Your task to perform on an android device: Go to Reddit.com Image 0: 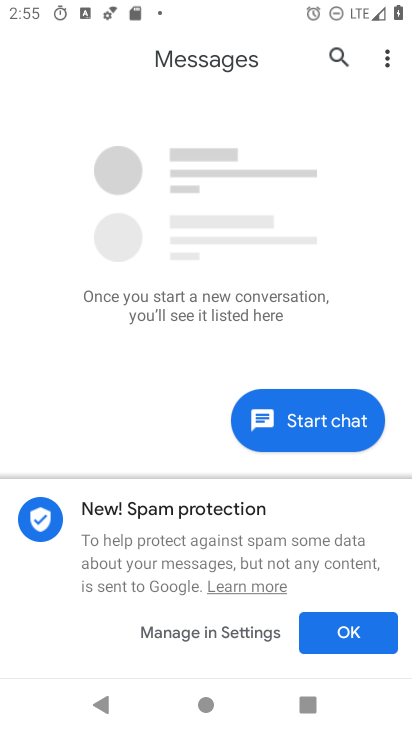
Step 0: press home button
Your task to perform on an android device: Go to Reddit.com Image 1: 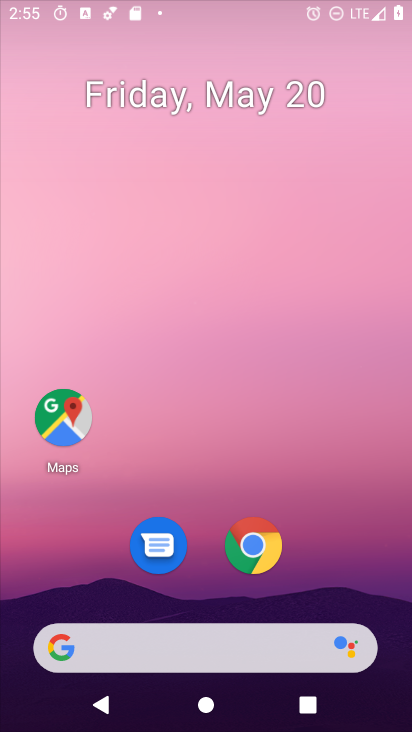
Step 1: drag from (298, 567) to (258, 44)
Your task to perform on an android device: Go to Reddit.com Image 2: 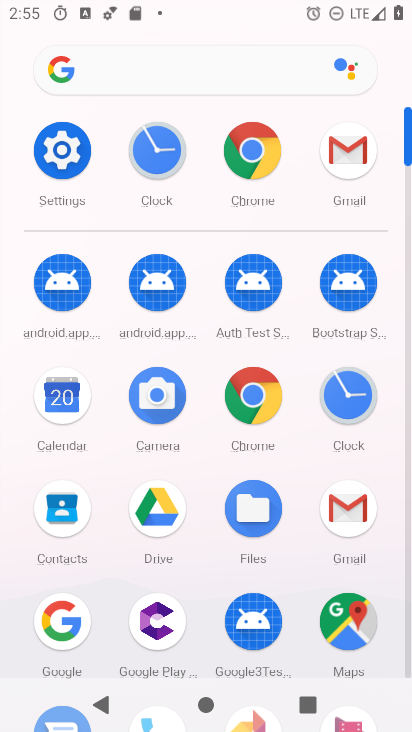
Step 2: click (252, 407)
Your task to perform on an android device: Go to Reddit.com Image 3: 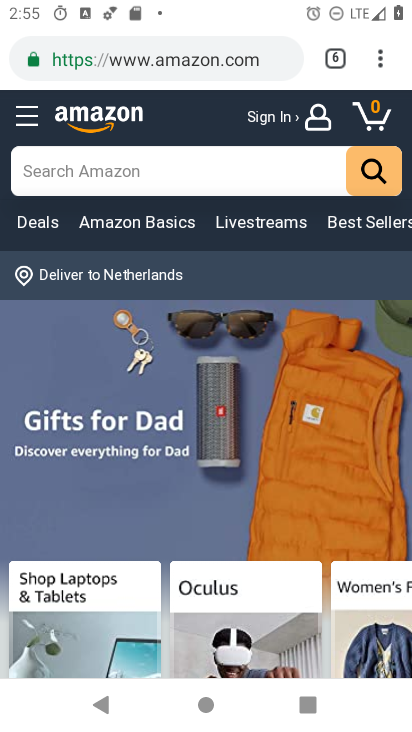
Step 3: click (200, 66)
Your task to perform on an android device: Go to Reddit.com Image 4: 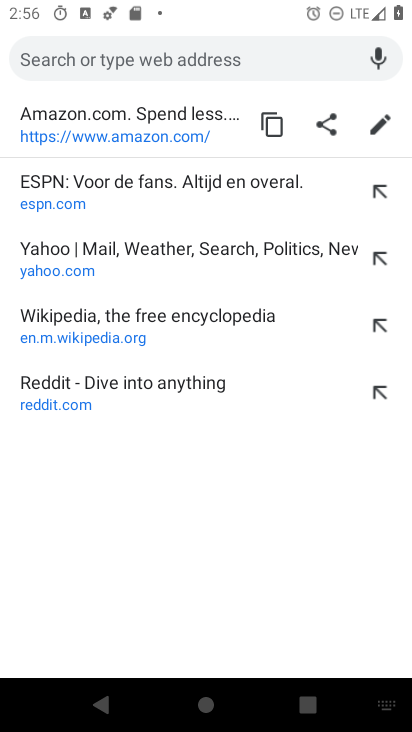
Step 4: click (239, 388)
Your task to perform on an android device: Go to Reddit.com Image 5: 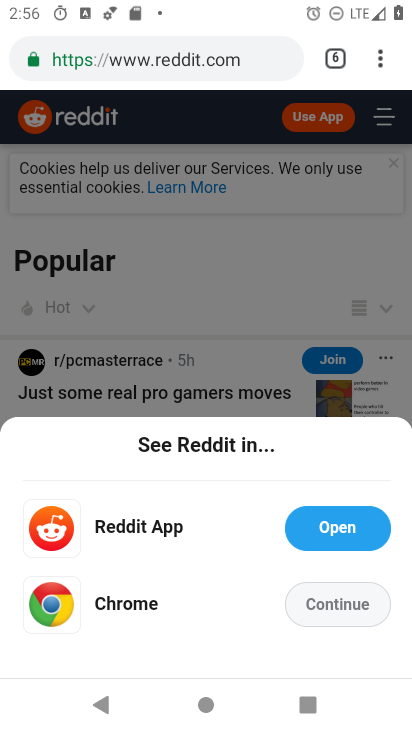
Step 5: task complete